Your task to perform on an android device: Open notification settings Image 0: 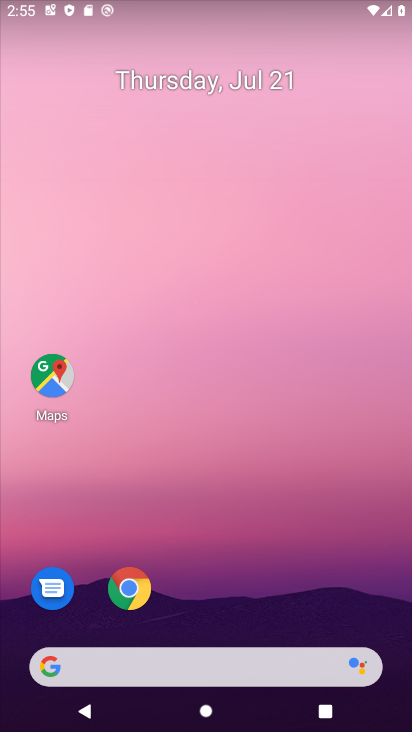
Step 0: drag from (220, 575) to (190, 172)
Your task to perform on an android device: Open notification settings Image 1: 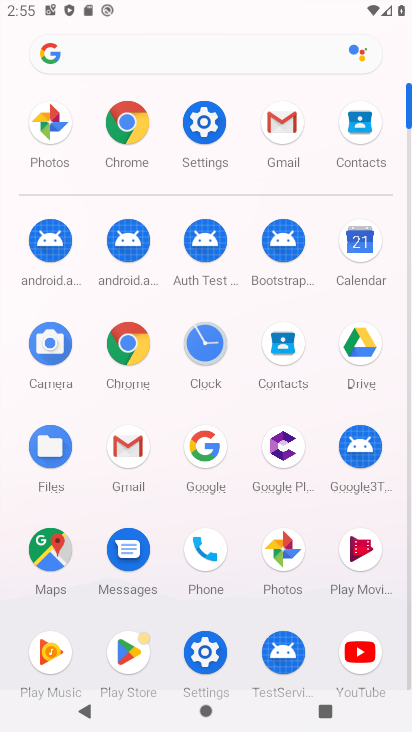
Step 1: click (207, 118)
Your task to perform on an android device: Open notification settings Image 2: 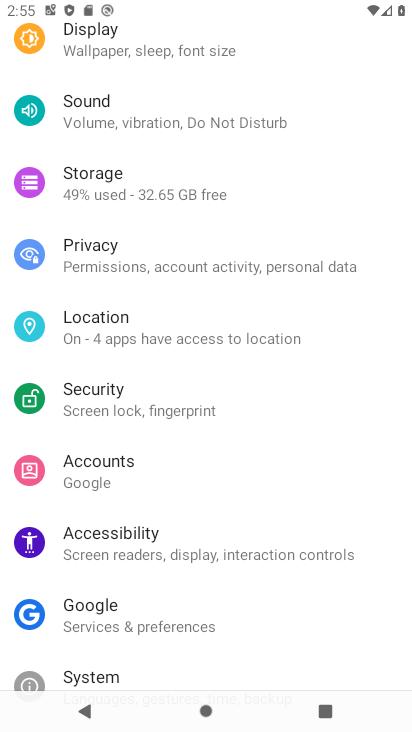
Step 2: drag from (224, 152) to (164, 594)
Your task to perform on an android device: Open notification settings Image 3: 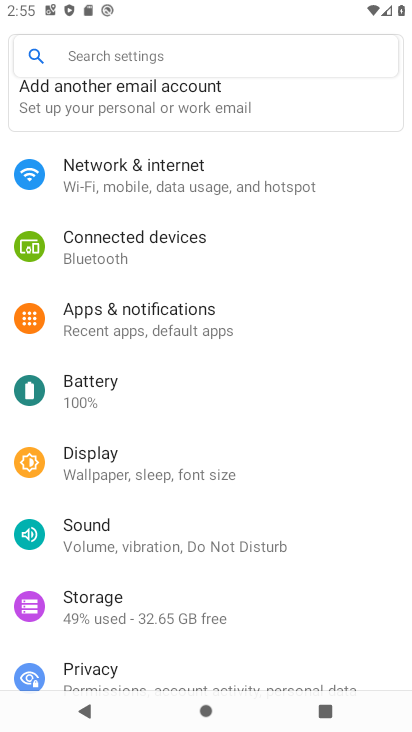
Step 3: click (140, 312)
Your task to perform on an android device: Open notification settings Image 4: 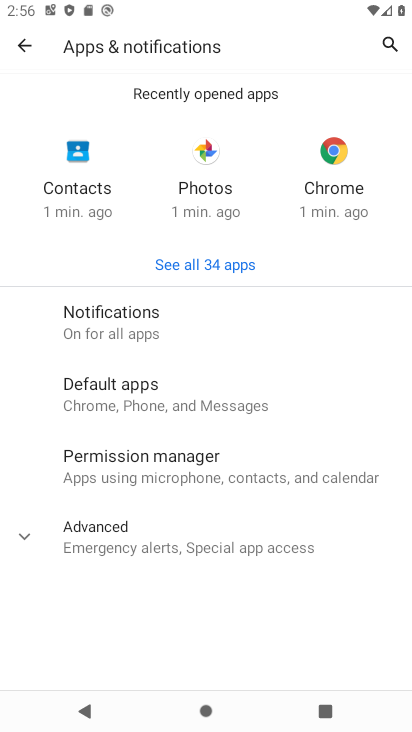
Step 4: task complete